Your task to perform on an android device: turn on airplane mode Image 0: 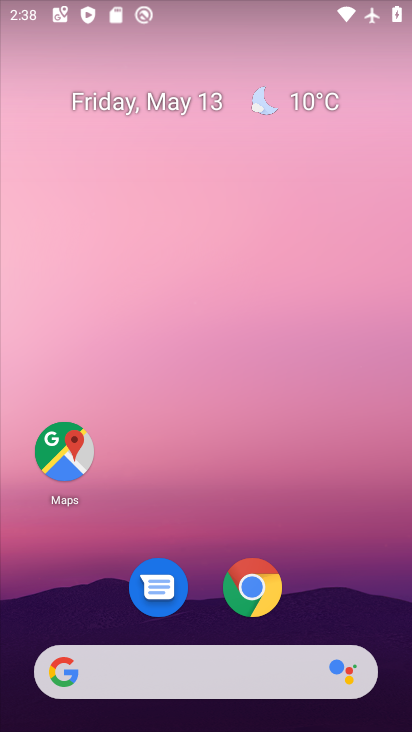
Step 0: drag from (307, 612) to (323, 12)
Your task to perform on an android device: turn on airplane mode Image 1: 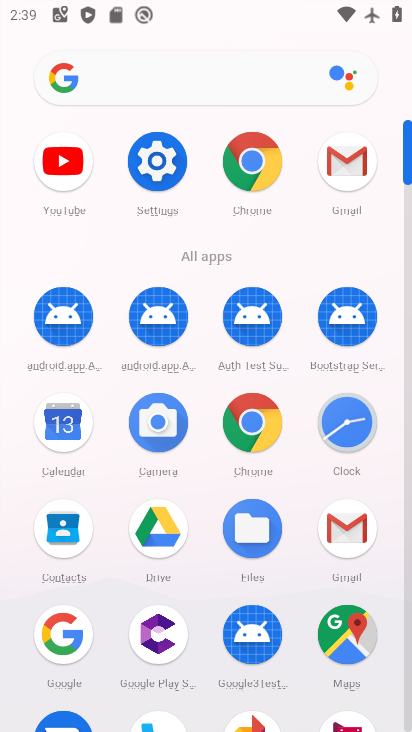
Step 1: click (137, 165)
Your task to perform on an android device: turn on airplane mode Image 2: 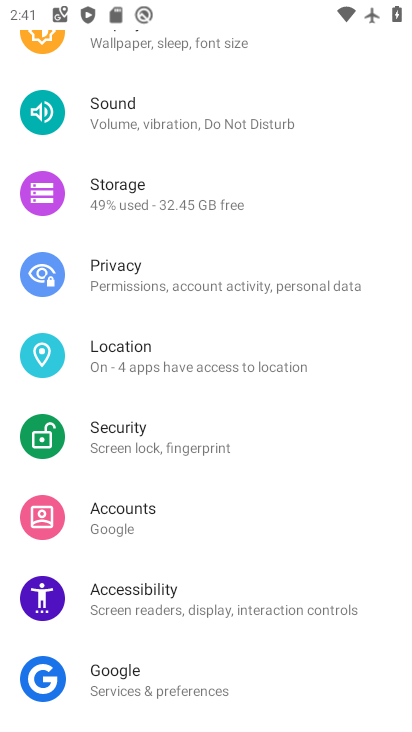
Step 2: drag from (180, 255) to (220, 535)
Your task to perform on an android device: turn on airplane mode Image 3: 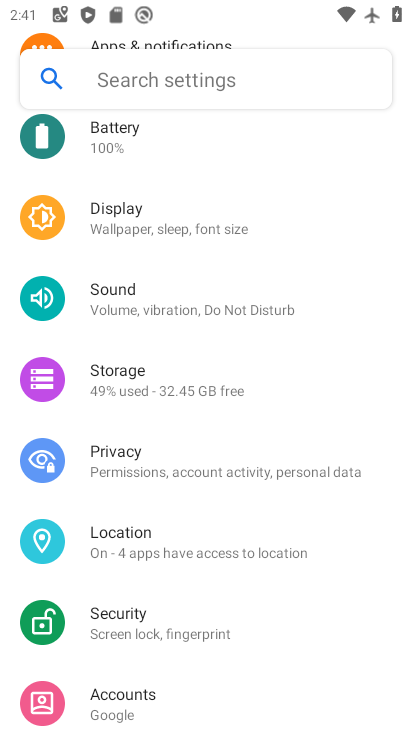
Step 3: drag from (190, 171) to (195, 631)
Your task to perform on an android device: turn on airplane mode Image 4: 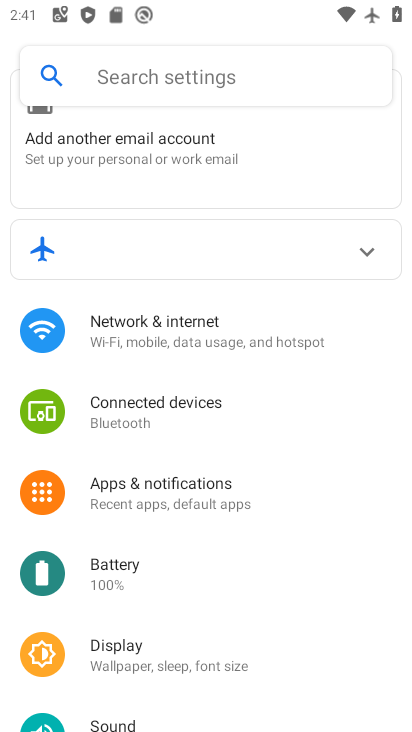
Step 4: drag from (145, 337) to (152, 658)
Your task to perform on an android device: turn on airplane mode Image 5: 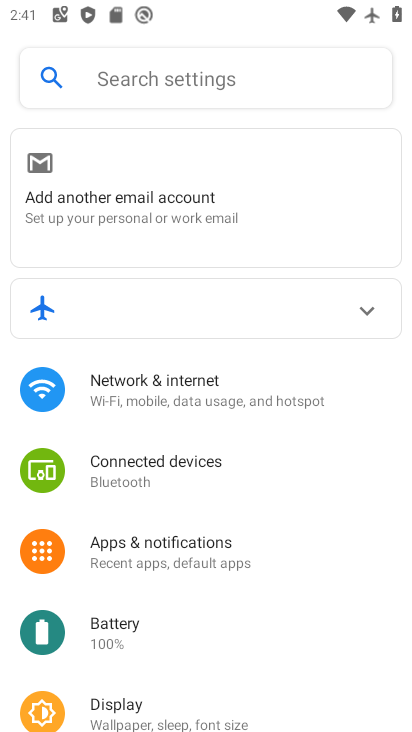
Step 5: click (155, 385)
Your task to perform on an android device: turn on airplane mode Image 6: 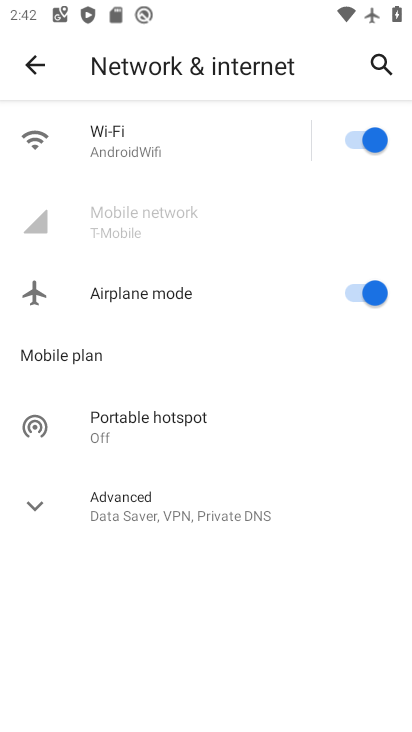
Step 6: task complete